Your task to perform on an android device: Show the shopping cart on costco. Search for "razer naga" on costco, select the first entry, add it to the cart, then select checkout. Image 0: 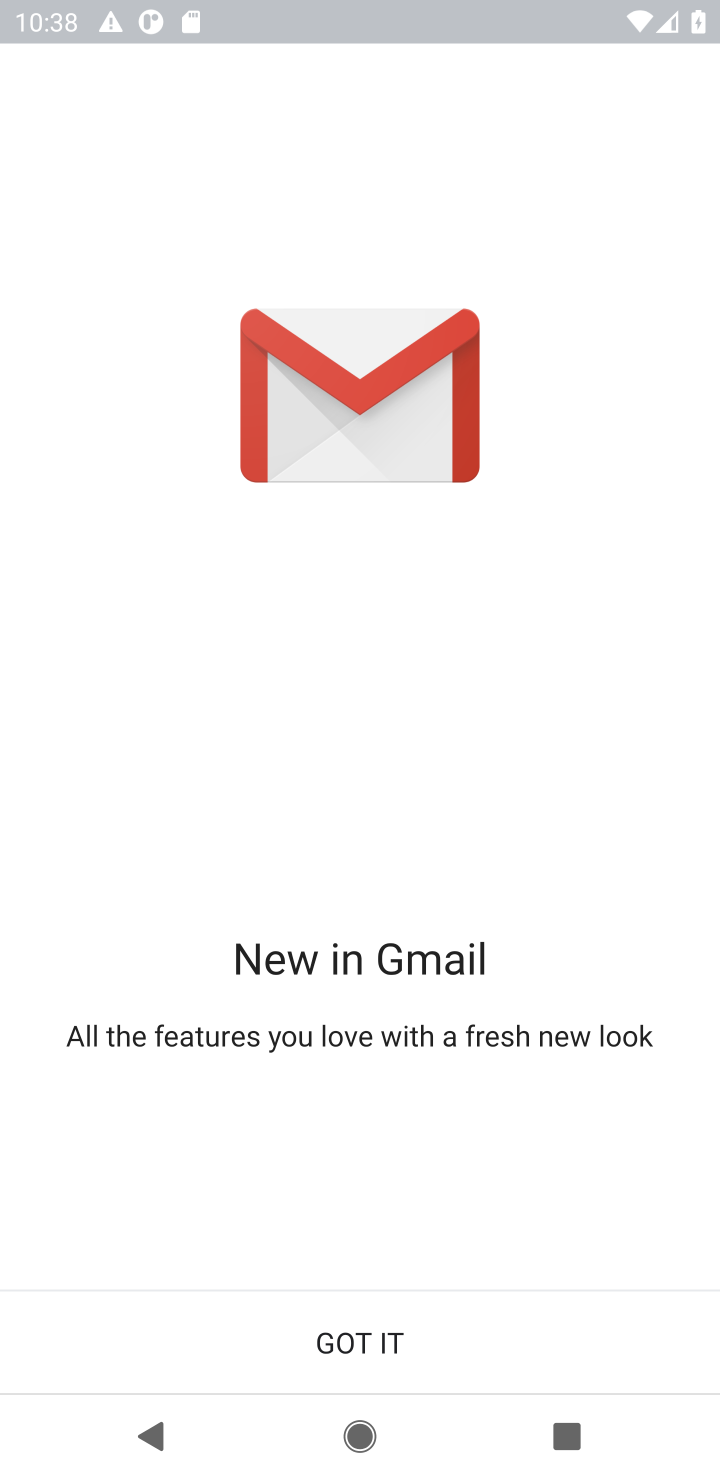
Step 0: press home button
Your task to perform on an android device: Show the shopping cart on costco. Search for "razer naga" on costco, select the first entry, add it to the cart, then select checkout. Image 1: 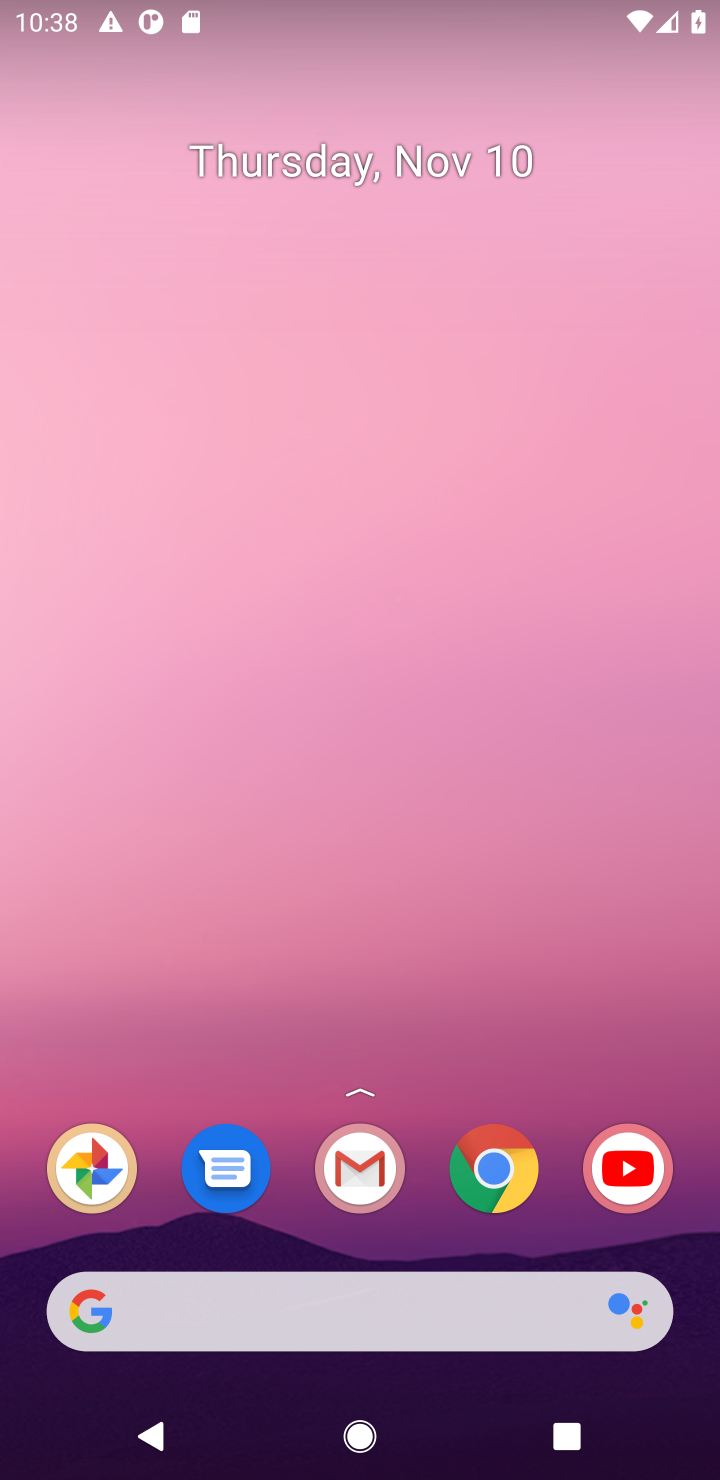
Step 1: click (507, 1187)
Your task to perform on an android device: Show the shopping cart on costco. Search for "razer naga" on costco, select the first entry, add it to the cart, then select checkout. Image 2: 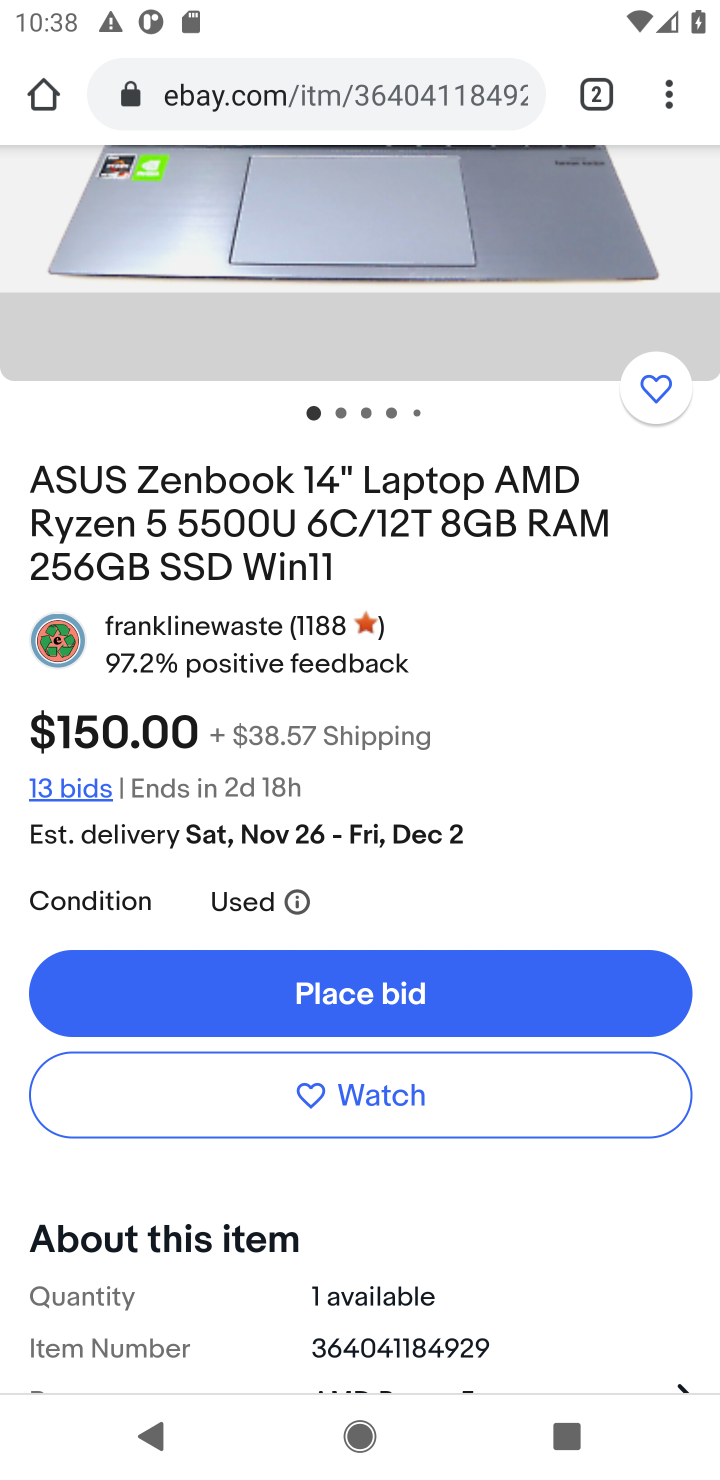
Step 2: click (275, 101)
Your task to perform on an android device: Show the shopping cart on costco. Search for "razer naga" on costco, select the first entry, add it to the cart, then select checkout. Image 3: 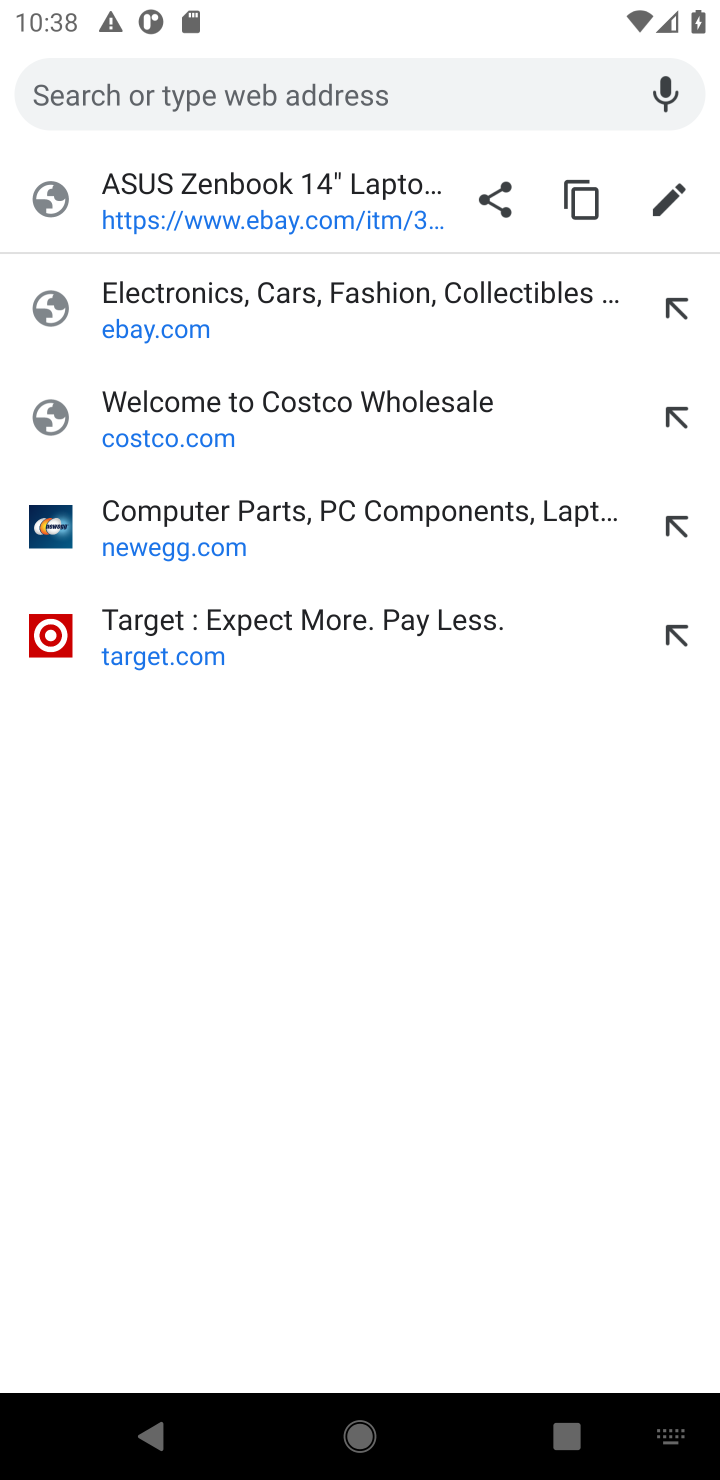
Step 3: click (162, 457)
Your task to perform on an android device: Show the shopping cart on costco. Search for "razer naga" on costco, select the first entry, add it to the cart, then select checkout. Image 4: 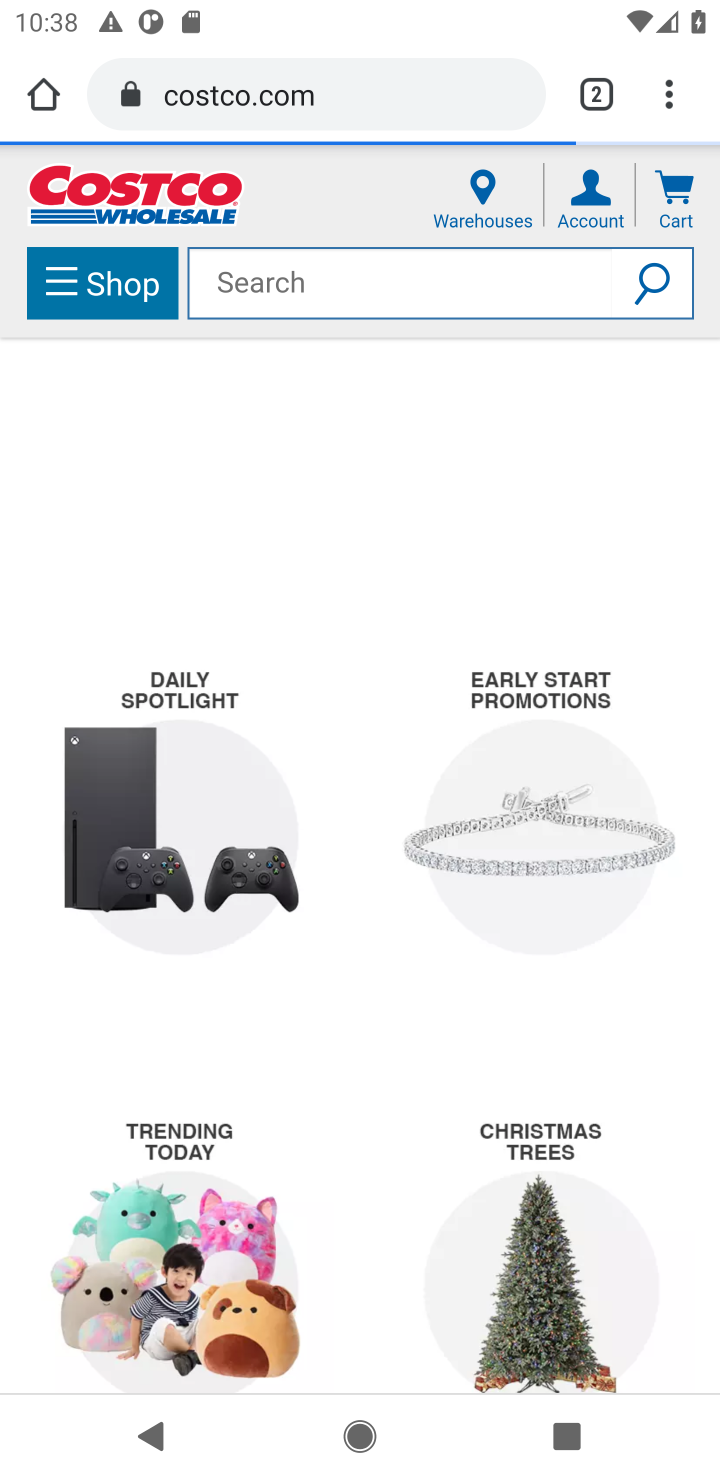
Step 4: click (664, 205)
Your task to perform on an android device: Show the shopping cart on costco. Search for "razer naga" on costco, select the first entry, add it to the cart, then select checkout. Image 5: 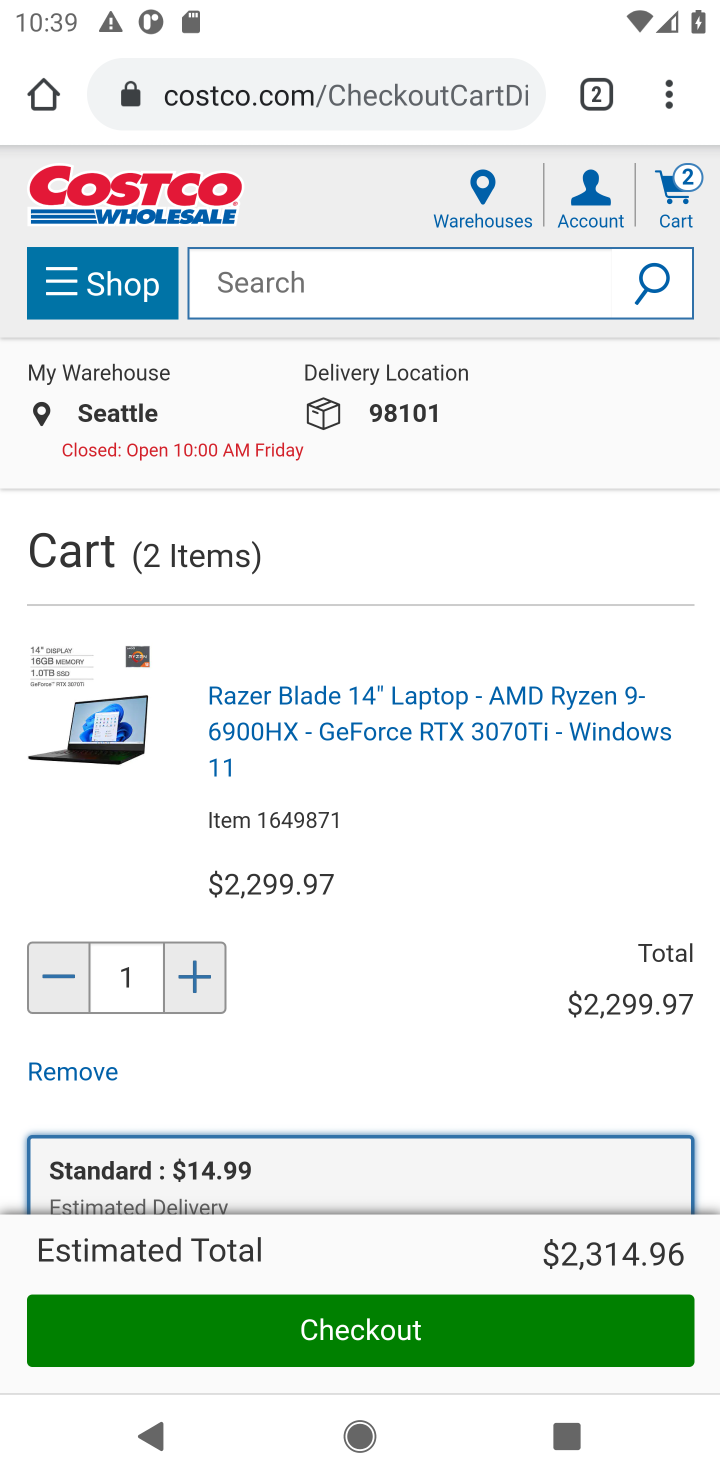
Step 5: click (308, 293)
Your task to perform on an android device: Show the shopping cart on costco. Search for "razer naga" on costco, select the first entry, add it to the cart, then select checkout. Image 6: 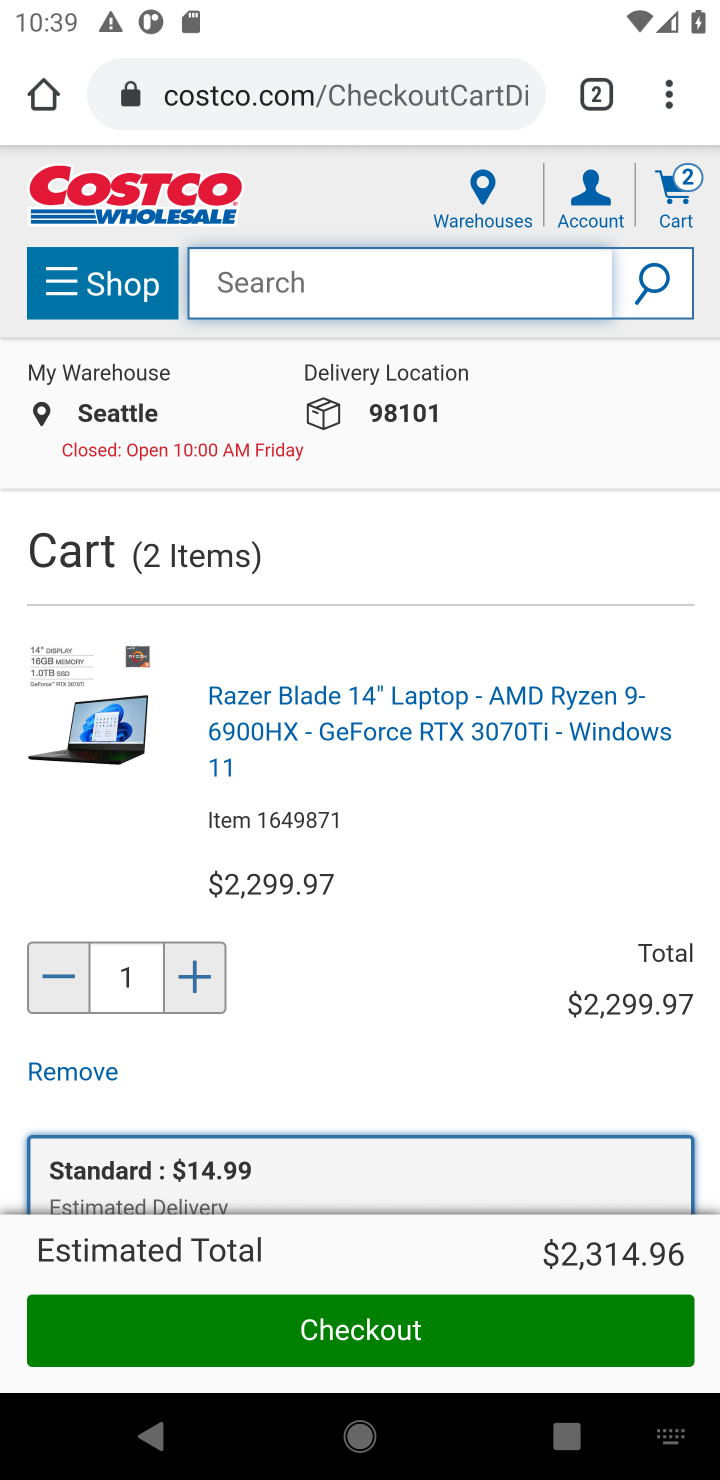
Step 6: type "razer naga"
Your task to perform on an android device: Show the shopping cart on costco. Search for "razer naga" on costco, select the first entry, add it to the cart, then select checkout. Image 7: 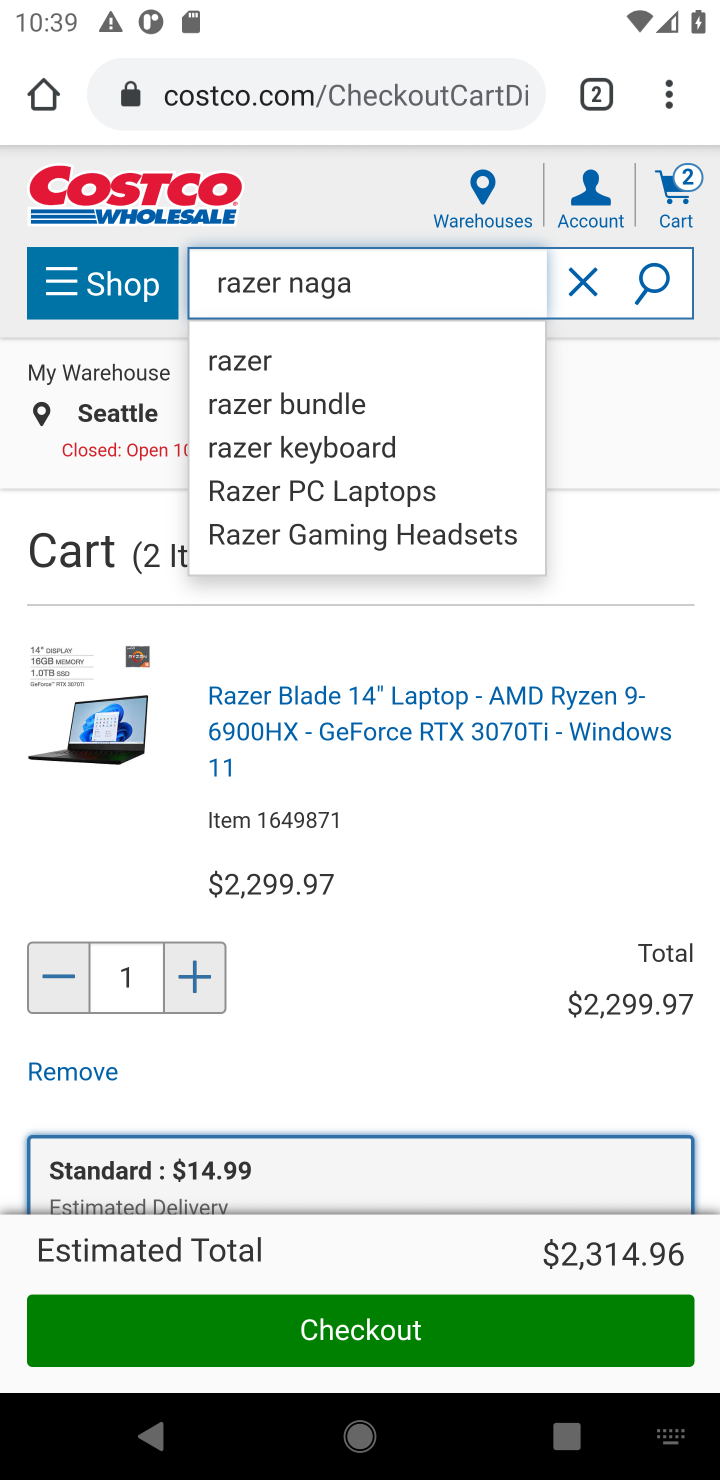
Step 7: click (654, 281)
Your task to perform on an android device: Show the shopping cart on costco. Search for "razer naga" on costco, select the first entry, add it to the cart, then select checkout. Image 8: 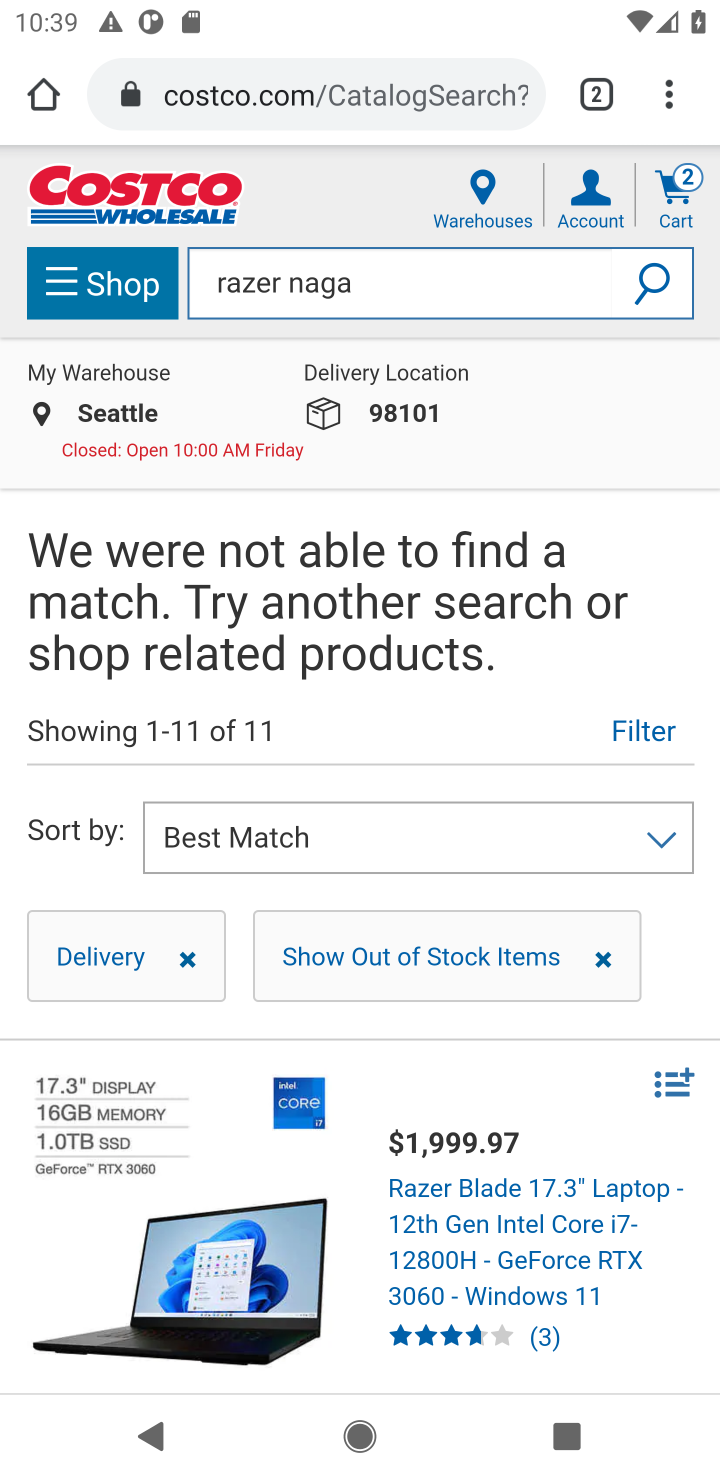
Step 8: task complete